Your task to perform on an android device: Open Chrome and go to the settings page Image 0: 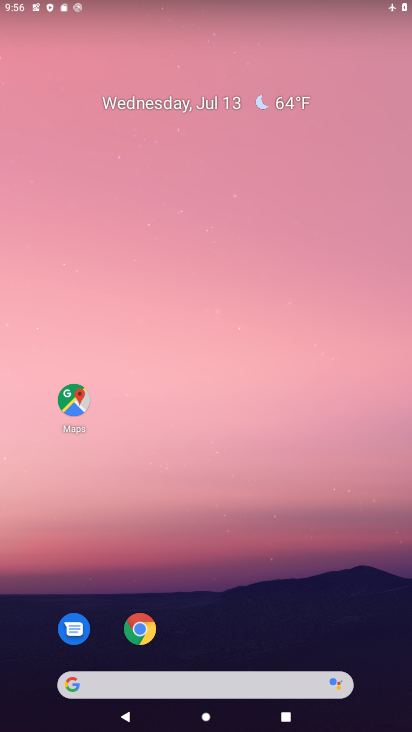
Step 0: drag from (218, 630) to (246, 209)
Your task to perform on an android device: Open Chrome and go to the settings page Image 1: 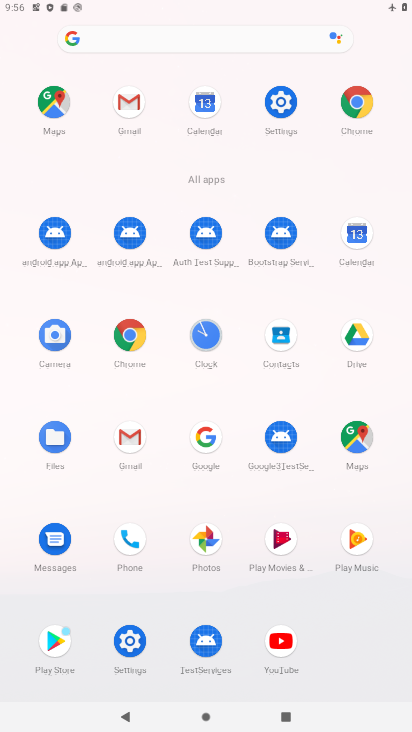
Step 1: click (284, 92)
Your task to perform on an android device: Open Chrome and go to the settings page Image 2: 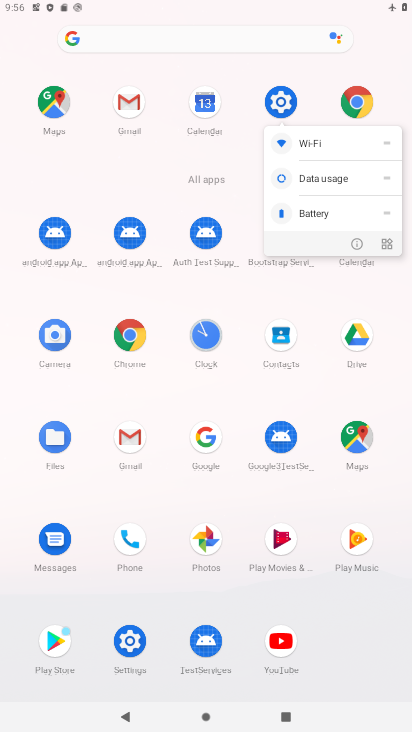
Step 2: click (355, 103)
Your task to perform on an android device: Open Chrome and go to the settings page Image 3: 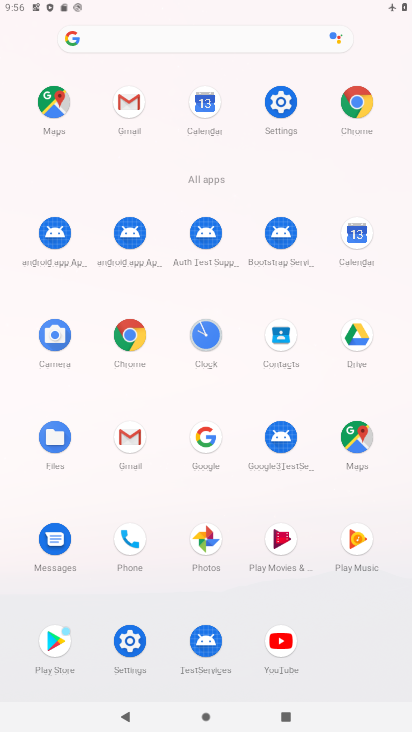
Step 3: click (355, 103)
Your task to perform on an android device: Open Chrome and go to the settings page Image 4: 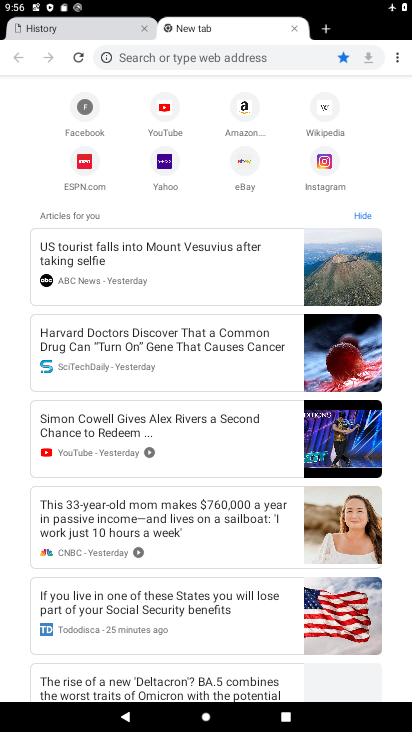
Step 4: click (393, 55)
Your task to perform on an android device: Open Chrome and go to the settings page Image 5: 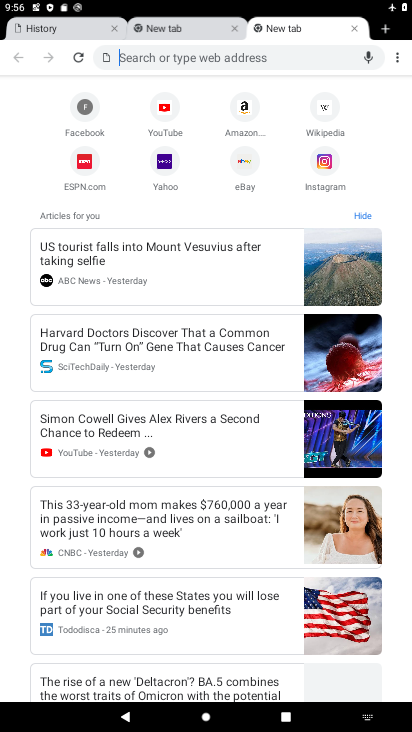
Step 5: click (393, 61)
Your task to perform on an android device: Open Chrome and go to the settings page Image 6: 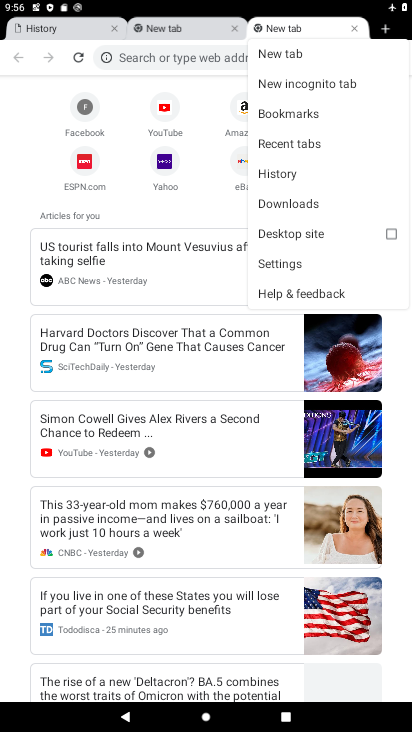
Step 6: click (299, 253)
Your task to perform on an android device: Open Chrome and go to the settings page Image 7: 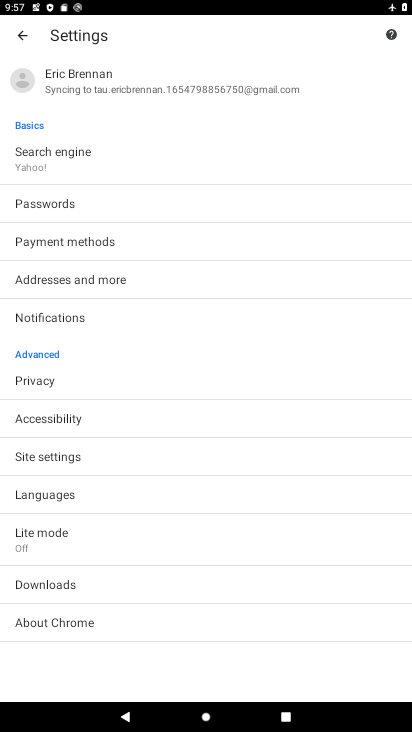
Step 7: task complete